Your task to perform on an android device: When is my next appointment? Image 0: 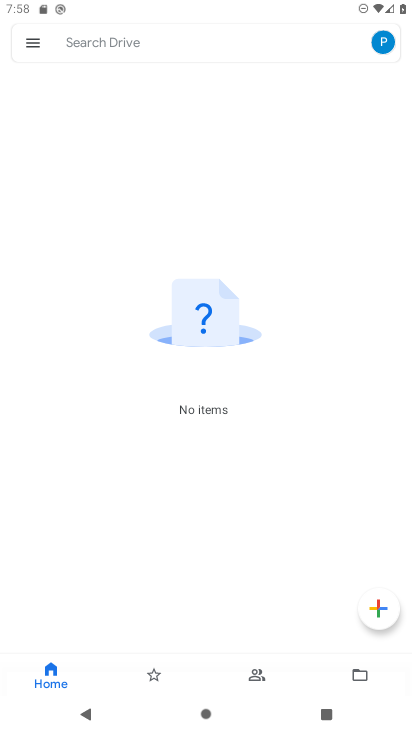
Step 0: drag from (304, 602) to (276, 223)
Your task to perform on an android device: When is my next appointment? Image 1: 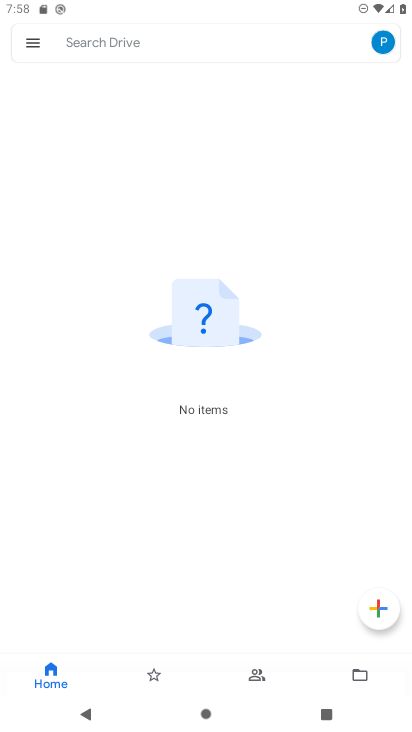
Step 1: press home button
Your task to perform on an android device: When is my next appointment? Image 2: 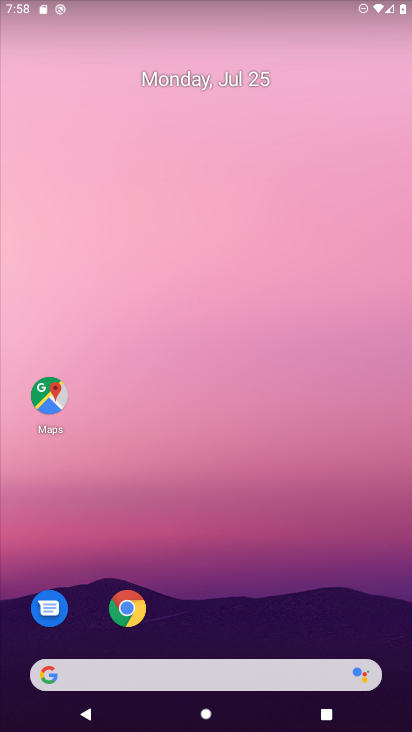
Step 2: drag from (340, 554) to (315, 172)
Your task to perform on an android device: When is my next appointment? Image 3: 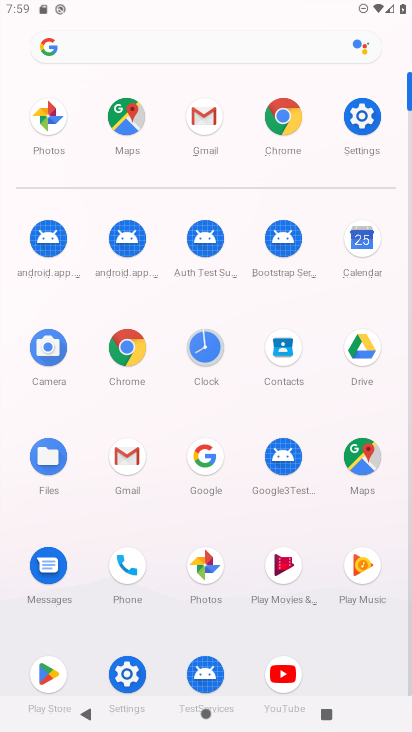
Step 3: click (361, 227)
Your task to perform on an android device: When is my next appointment? Image 4: 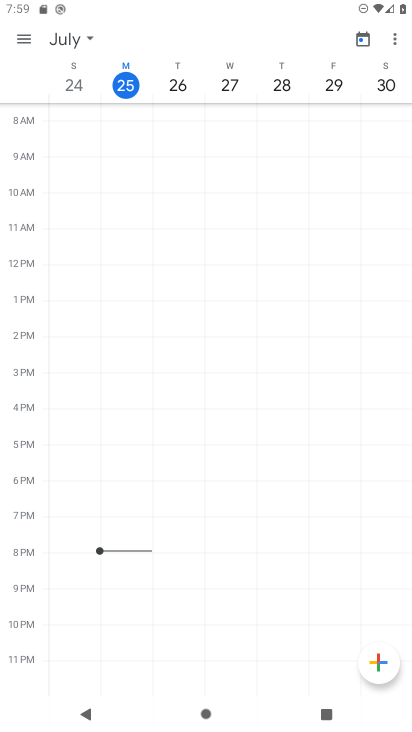
Step 4: task complete